Your task to perform on an android device: Clear the cart on walmart.com. Add "lenovo thinkpad" to the cart on walmart.com, then select checkout. Image 0: 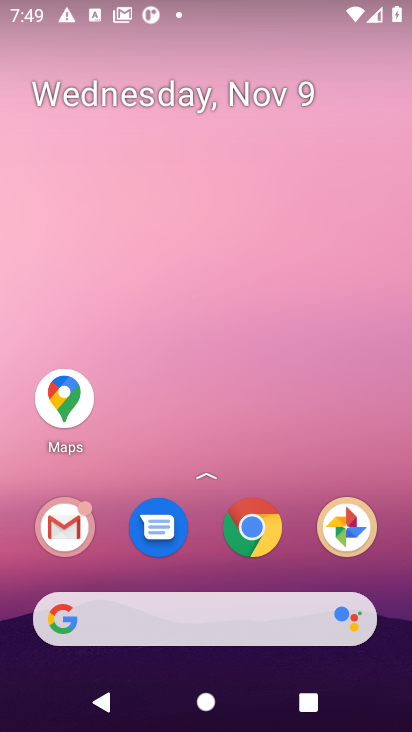
Step 0: click (256, 527)
Your task to perform on an android device: Clear the cart on walmart.com. Add "lenovo thinkpad" to the cart on walmart.com, then select checkout. Image 1: 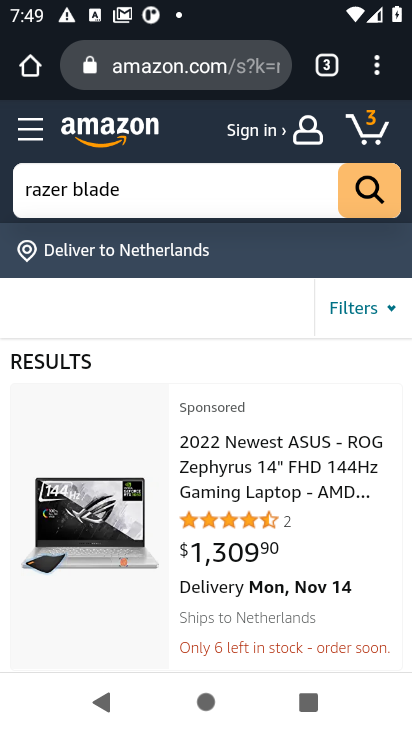
Step 1: click (152, 68)
Your task to perform on an android device: Clear the cart on walmart.com. Add "lenovo thinkpad" to the cart on walmart.com, then select checkout. Image 2: 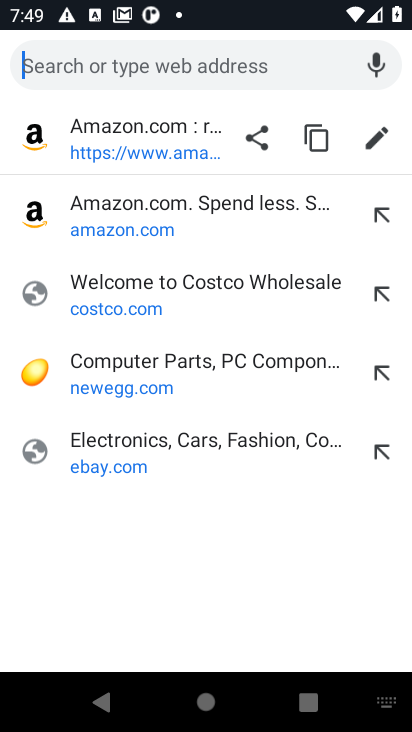
Step 2: type "walmart.com"
Your task to perform on an android device: Clear the cart on walmart.com. Add "lenovo thinkpad" to the cart on walmart.com, then select checkout. Image 3: 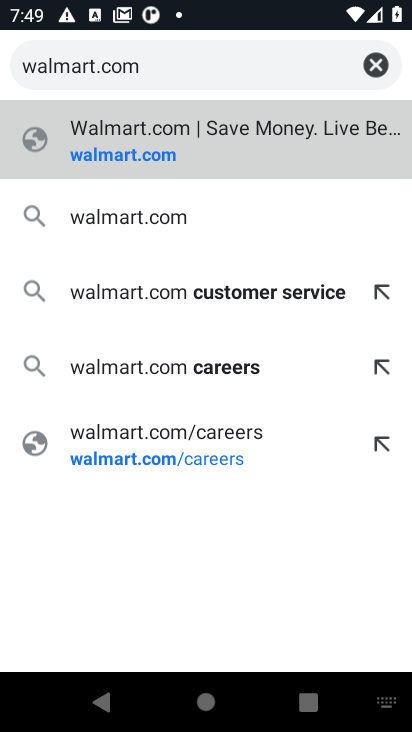
Step 3: click (118, 153)
Your task to perform on an android device: Clear the cart on walmart.com. Add "lenovo thinkpad" to the cart on walmart.com, then select checkout. Image 4: 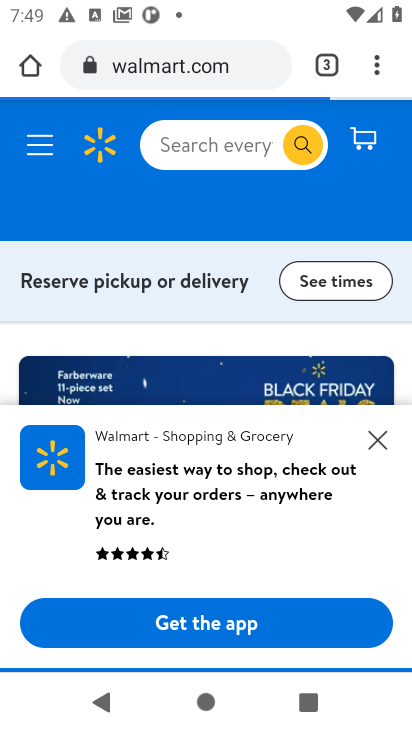
Step 4: click (356, 148)
Your task to perform on an android device: Clear the cart on walmart.com. Add "lenovo thinkpad" to the cart on walmart.com, then select checkout. Image 5: 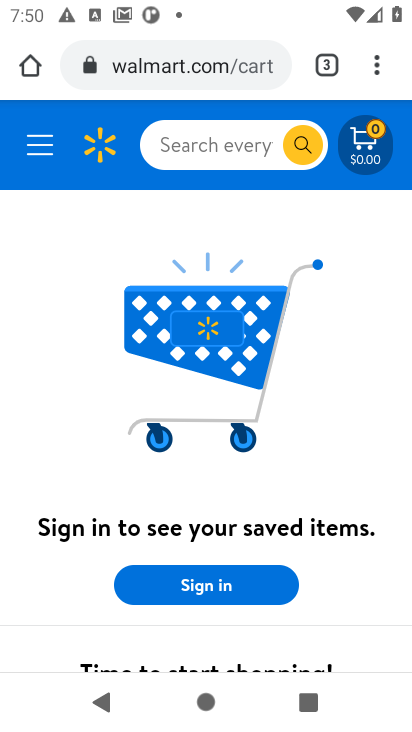
Step 5: click (223, 144)
Your task to perform on an android device: Clear the cart on walmart.com. Add "lenovo thinkpad" to the cart on walmart.com, then select checkout. Image 6: 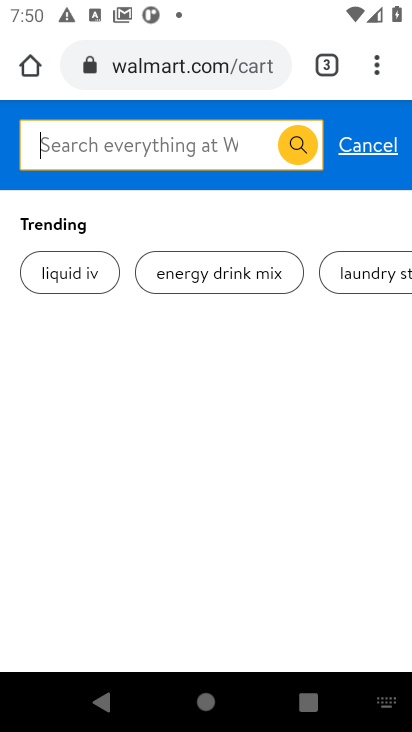
Step 6: type "lenovo thinkpad"
Your task to perform on an android device: Clear the cart on walmart.com. Add "lenovo thinkpad" to the cart on walmart.com, then select checkout. Image 7: 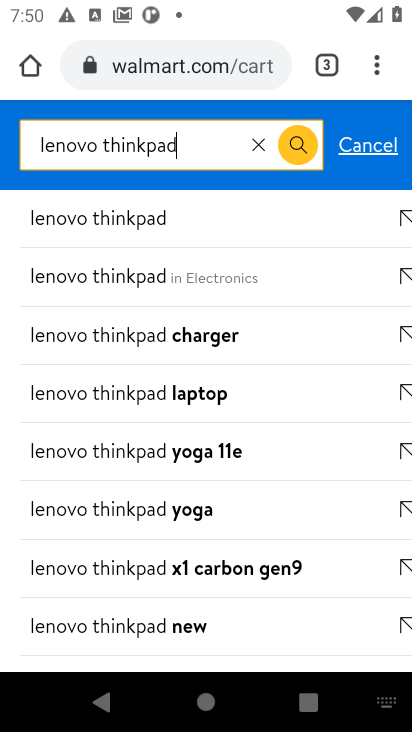
Step 7: click (116, 220)
Your task to perform on an android device: Clear the cart on walmart.com. Add "lenovo thinkpad" to the cart on walmart.com, then select checkout. Image 8: 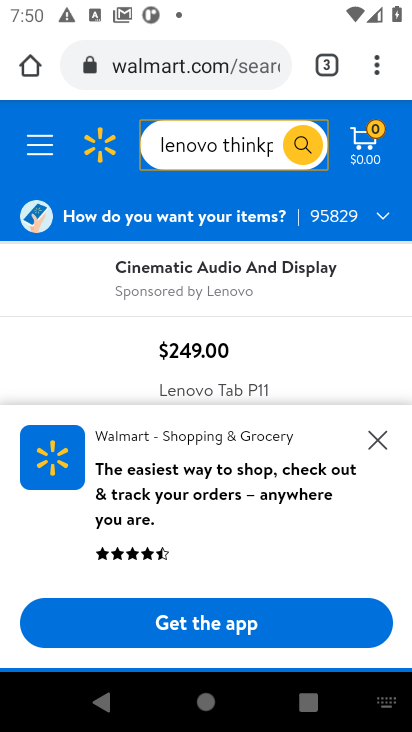
Step 8: click (380, 437)
Your task to perform on an android device: Clear the cart on walmart.com. Add "lenovo thinkpad" to the cart on walmart.com, then select checkout. Image 9: 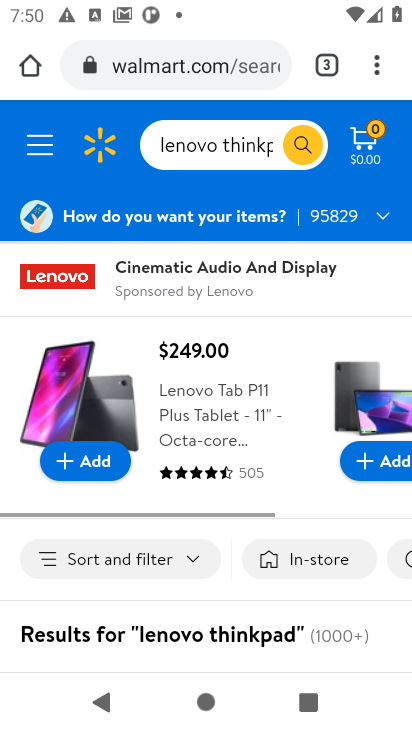
Step 9: drag from (124, 520) to (150, 223)
Your task to perform on an android device: Clear the cart on walmart.com. Add "lenovo thinkpad" to the cart on walmart.com, then select checkout. Image 10: 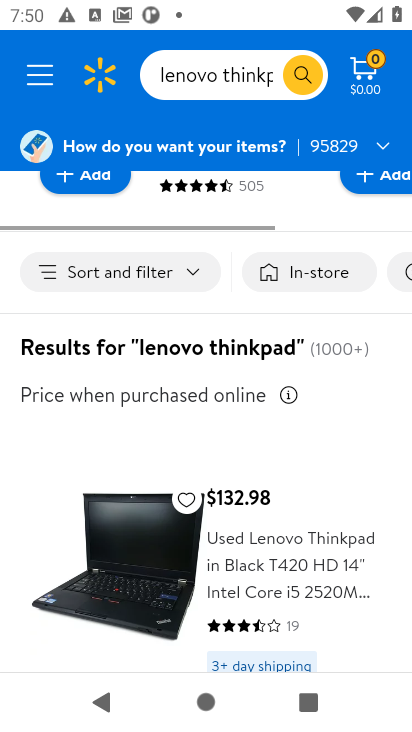
Step 10: drag from (156, 479) to (158, 315)
Your task to perform on an android device: Clear the cart on walmart.com. Add "lenovo thinkpad" to the cart on walmart.com, then select checkout. Image 11: 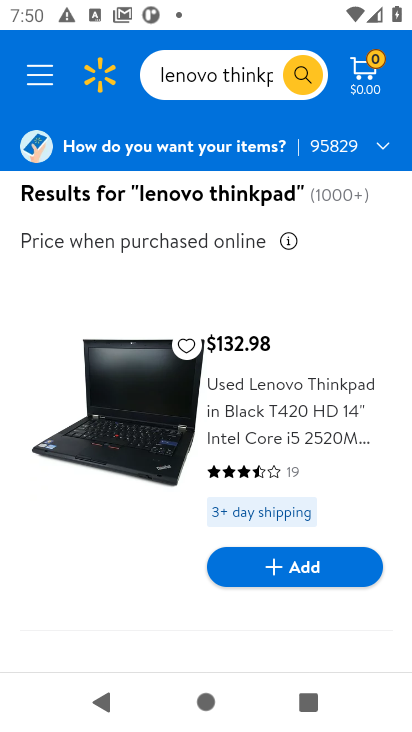
Step 11: click (316, 563)
Your task to perform on an android device: Clear the cart on walmart.com. Add "lenovo thinkpad" to the cart on walmart.com, then select checkout. Image 12: 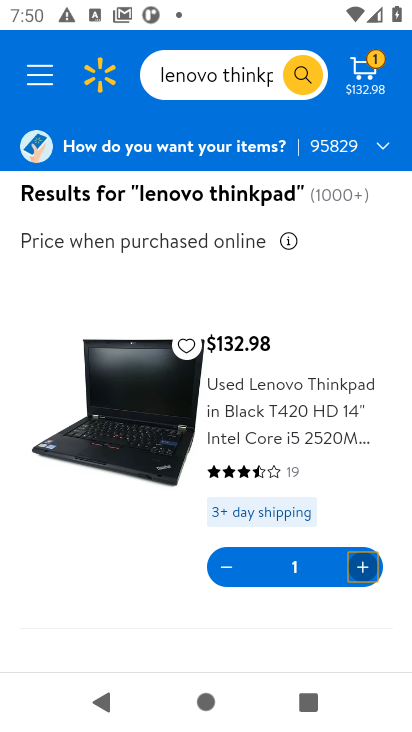
Step 12: click (363, 79)
Your task to perform on an android device: Clear the cart on walmart.com. Add "lenovo thinkpad" to the cart on walmart.com, then select checkout. Image 13: 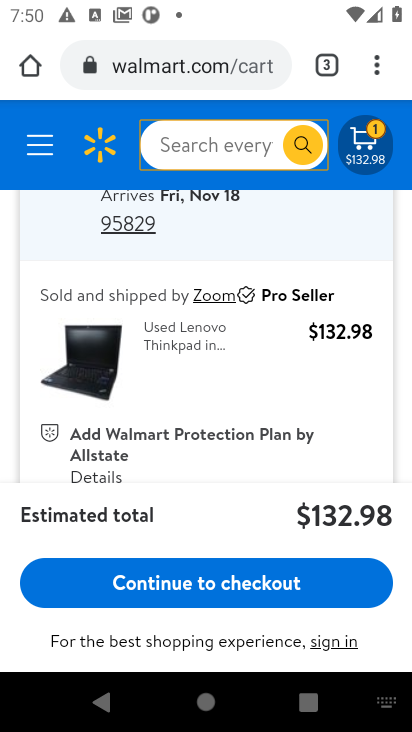
Step 13: click (207, 586)
Your task to perform on an android device: Clear the cart on walmart.com. Add "lenovo thinkpad" to the cart on walmart.com, then select checkout. Image 14: 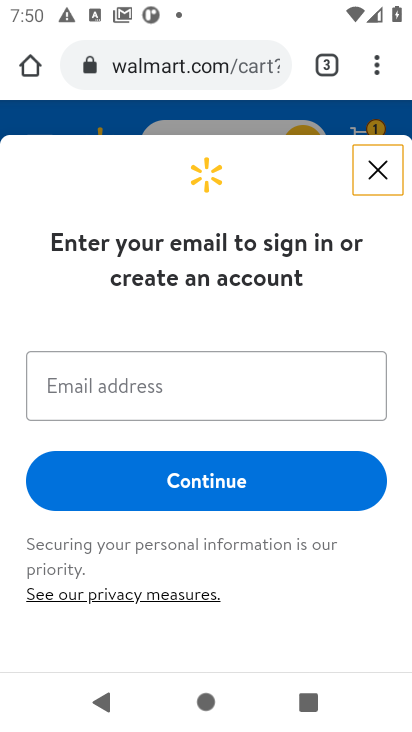
Step 14: task complete